Your task to perform on an android device: search for starred emails in the gmail app Image 0: 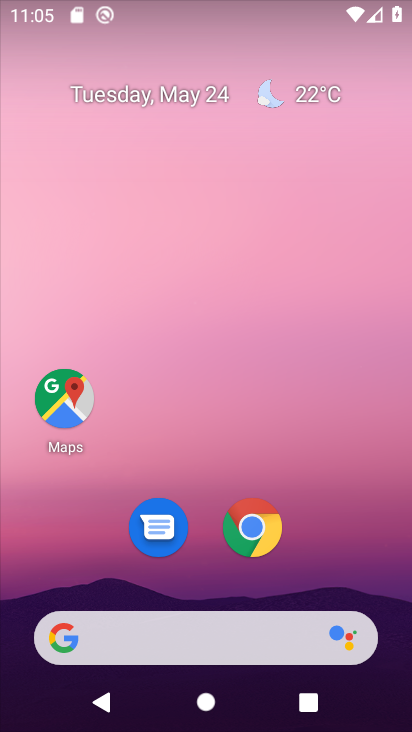
Step 0: press home button
Your task to perform on an android device: search for starred emails in the gmail app Image 1: 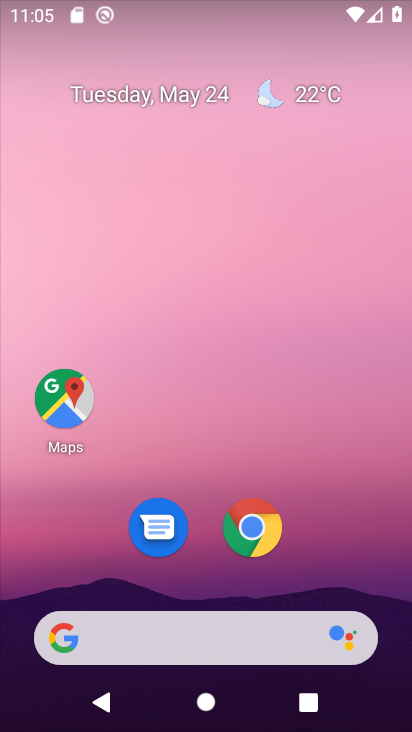
Step 1: drag from (169, 643) to (303, 155)
Your task to perform on an android device: search for starred emails in the gmail app Image 2: 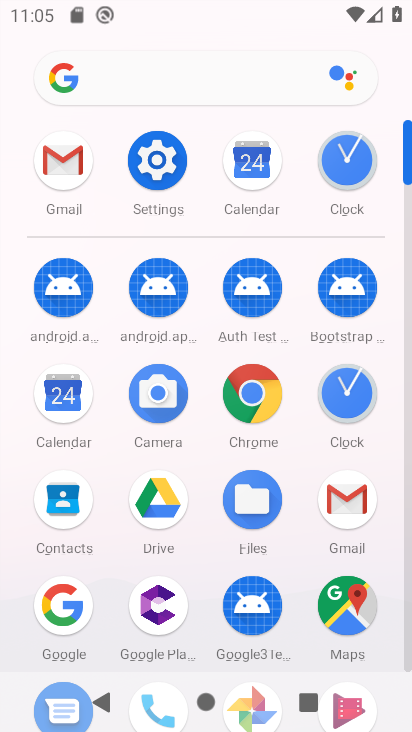
Step 2: click (60, 174)
Your task to perform on an android device: search for starred emails in the gmail app Image 3: 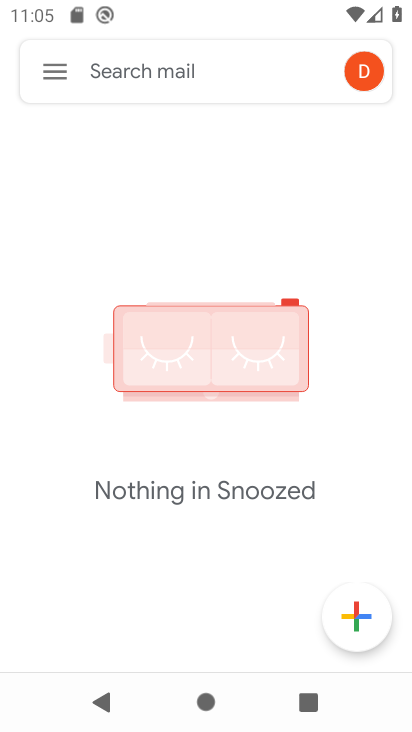
Step 3: click (46, 74)
Your task to perform on an android device: search for starred emails in the gmail app Image 4: 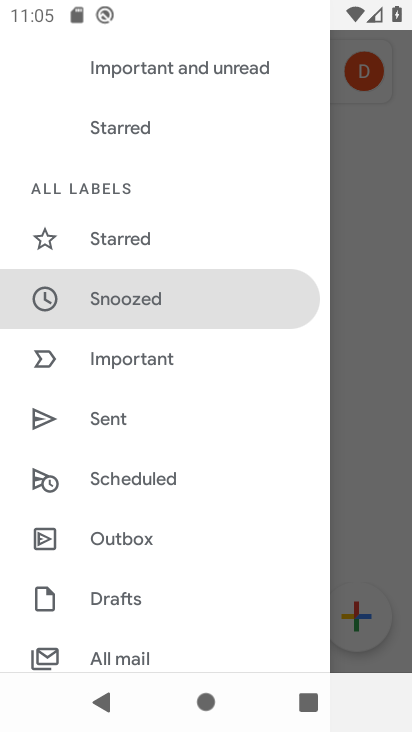
Step 4: click (123, 239)
Your task to perform on an android device: search for starred emails in the gmail app Image 5: 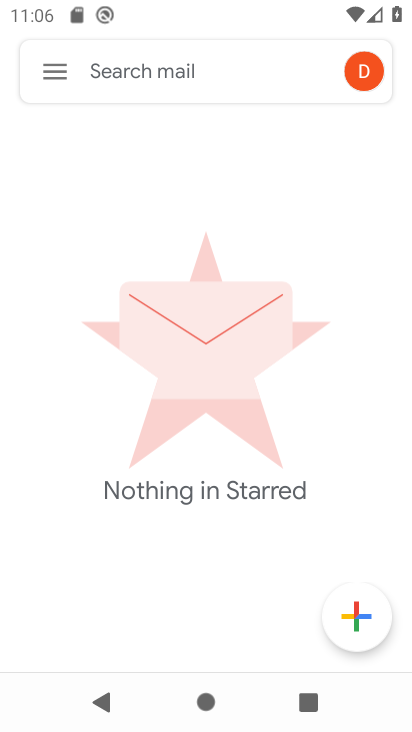
Step 5: task complete